Your task to perform on an android device: install app "Messages" Image 0: 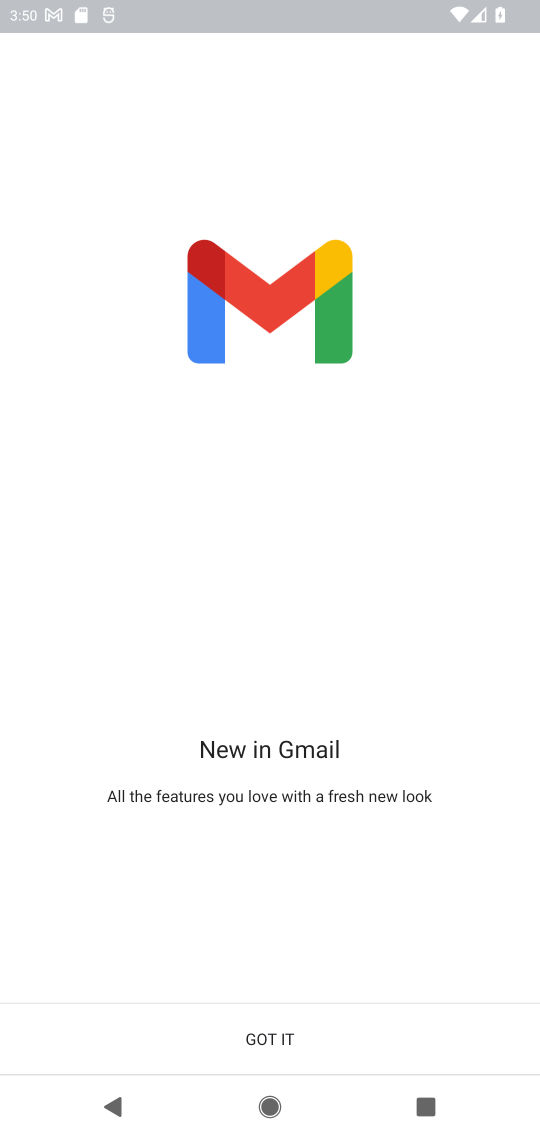
Step 0: press home button
Your task to perform on an android device: install app "Messages" Image 1: 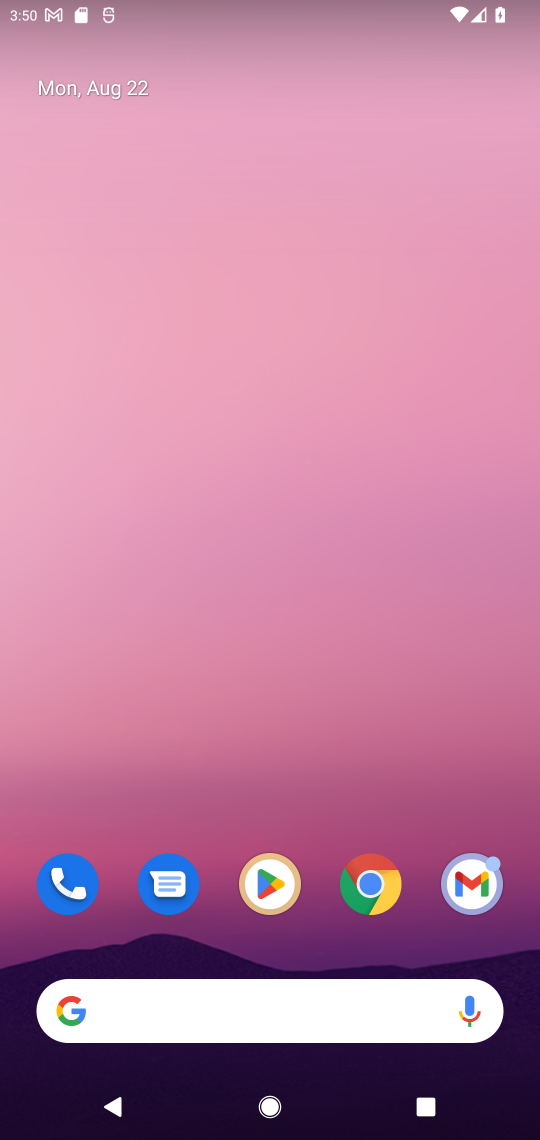
Step 1: click (257, 867)
Your task to perform on an android device: install app "Messages" Image 2: 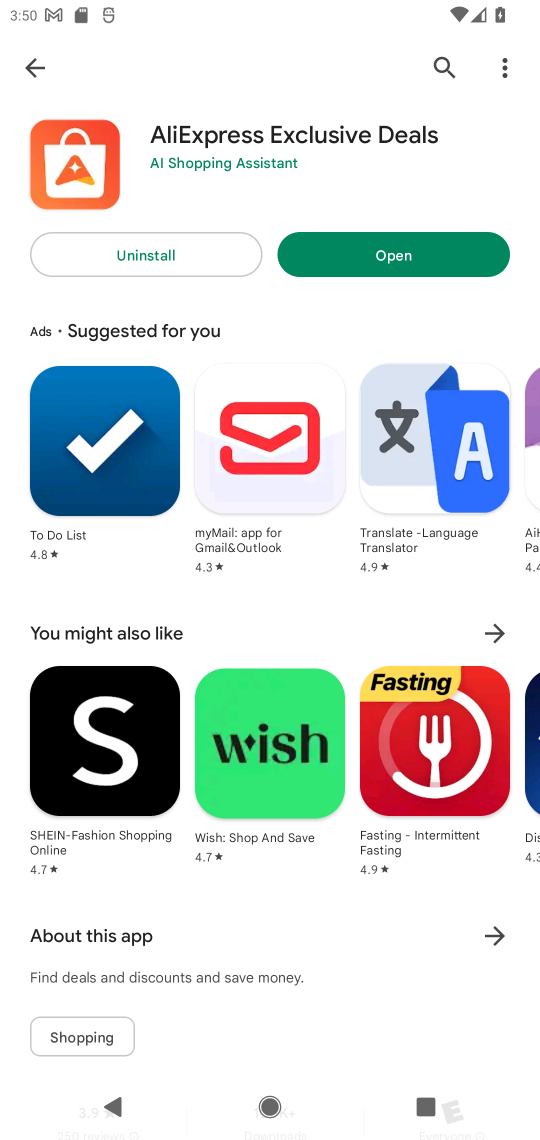
Step 2: click (30, 52)
Your task to perform on an android device: install app "Messages" Image 3: 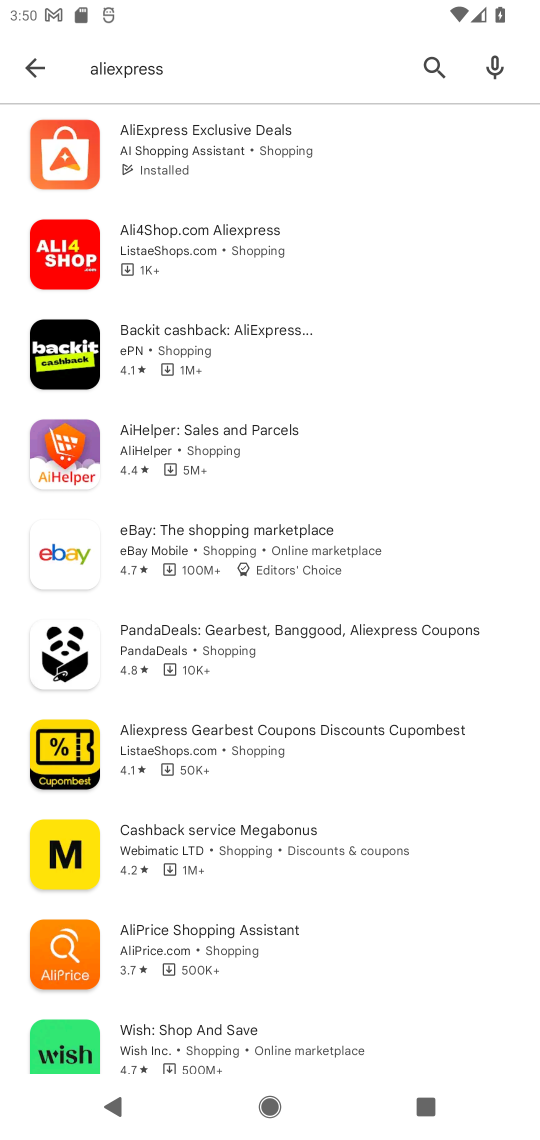
Step 3: click (263, 69)
Your task to perform on an android device: install app "Messages" Image 4: 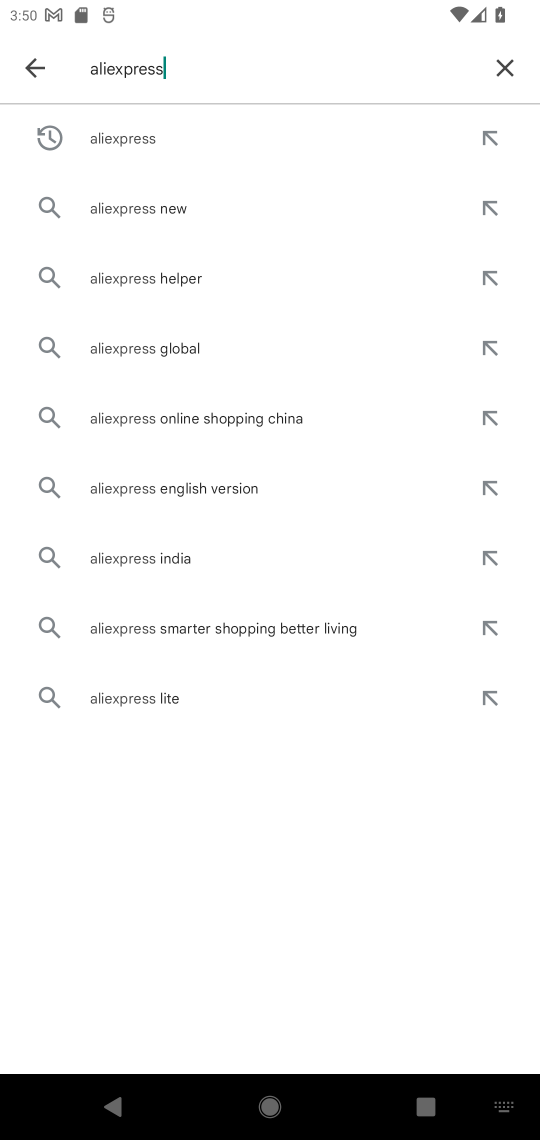
Step 4: click (505, 64)
Your task to perform on an android device: install app "Messages" Image 5: 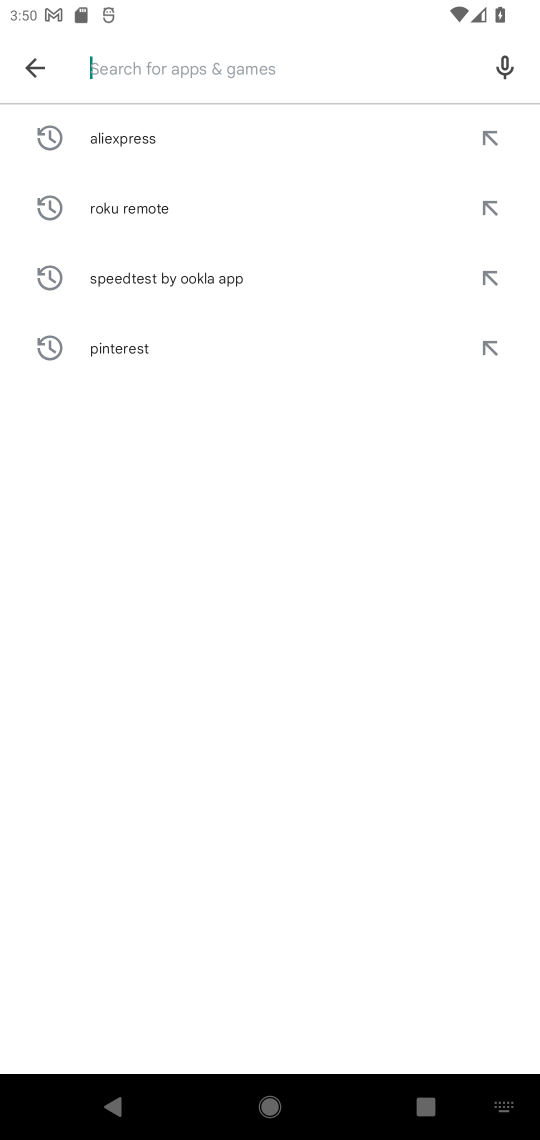
Step 5: type "Messages"
Your task to perform on an android device: install app "Messages" Image 6: 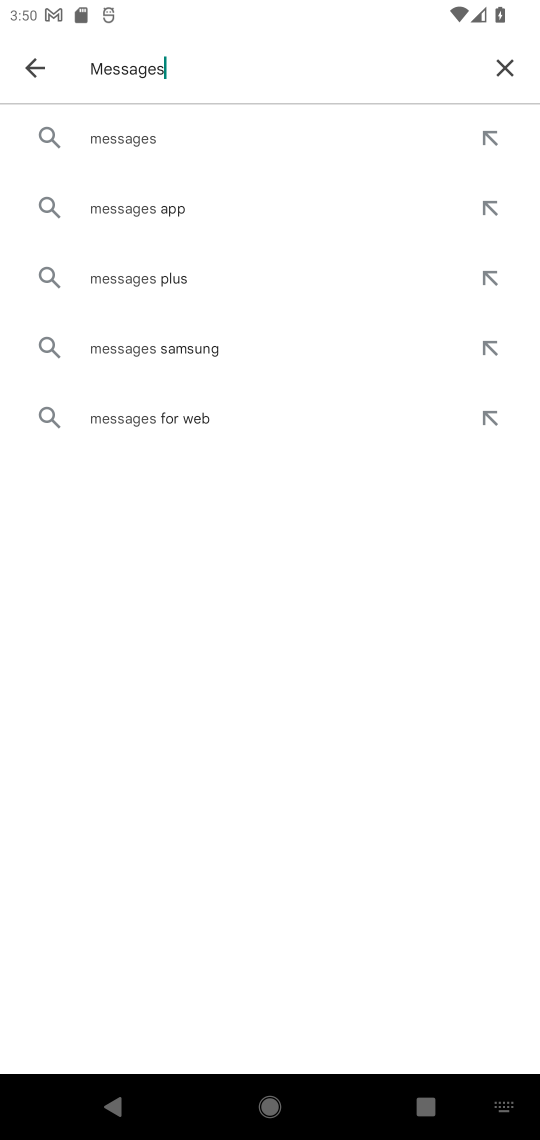
Step 6: click (101, 142)
Your task to perform on an android device: install app "Messages" Image 7: 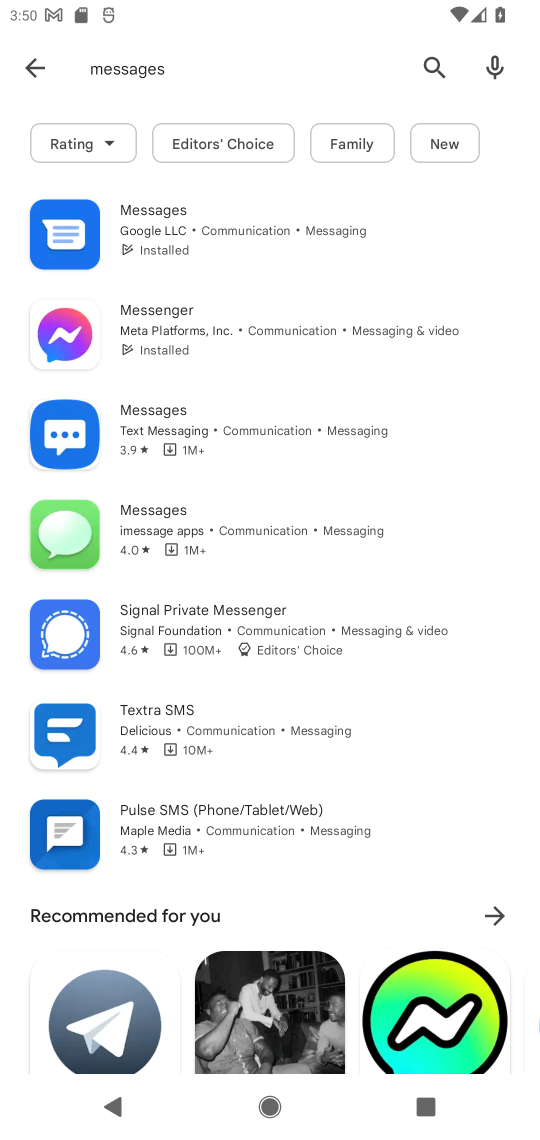
Step 7: click (169, 231)
Your task to perform on an android device: install app "Messages" Image 8: 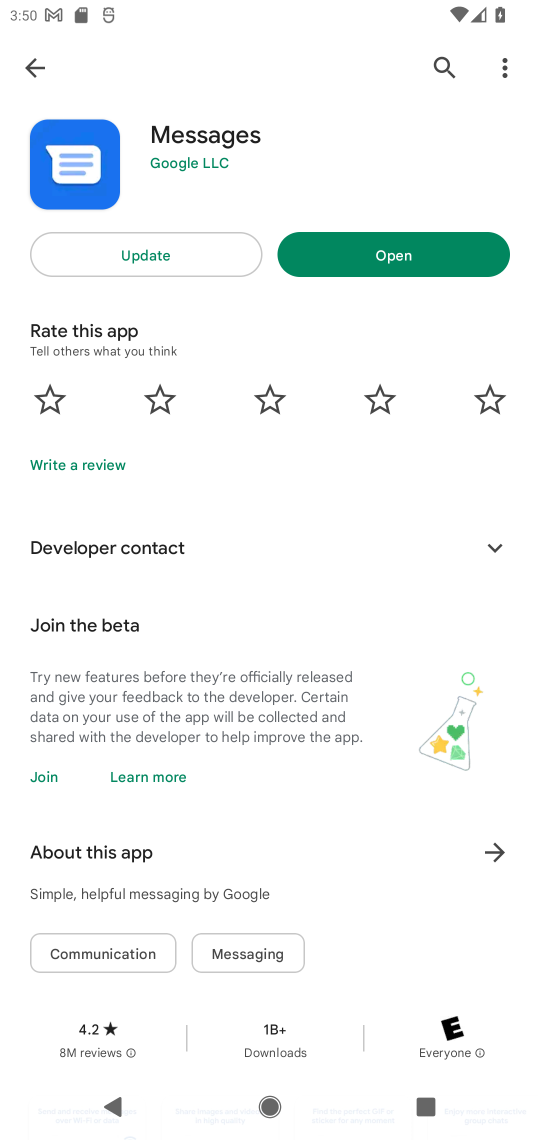
Step 8: task complete